Your task to perform on an android device: open chrome and create a bookmark for the current page Image 0: 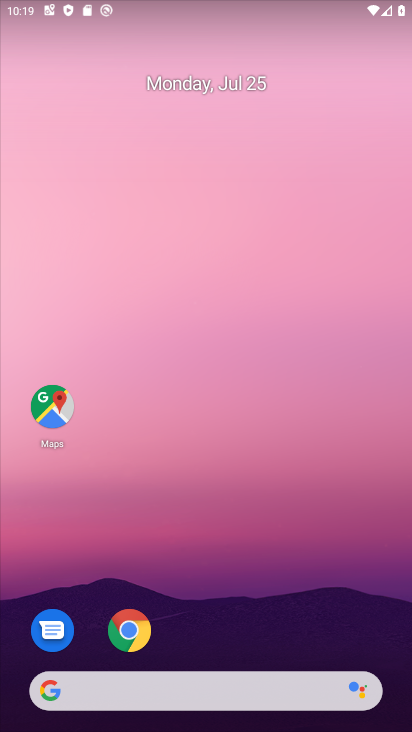
Step 0: press home button
Your task to perform on an android device: open chrome and create a bookmark for the current page Image 1: 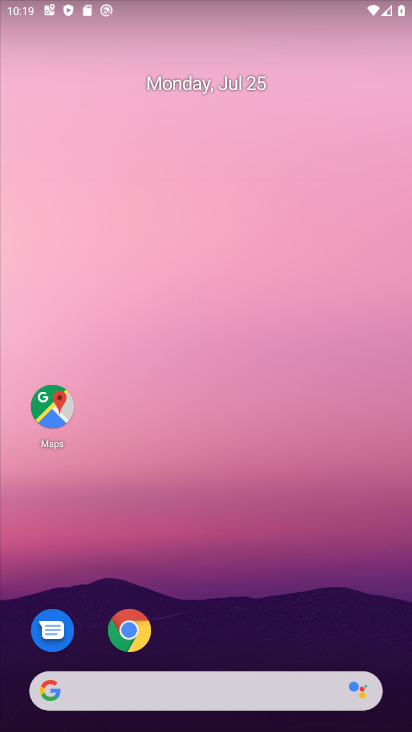
Step 1: drag from (301, 621) to (329, 106)
Your task to perform on an android device: open chrome and create a bookmark for the current page Image 2: 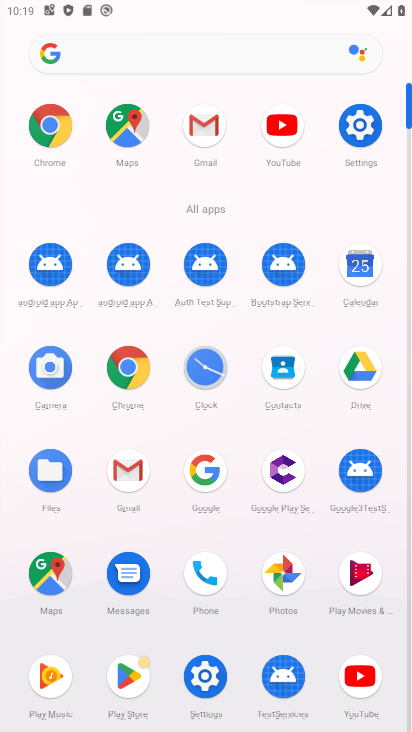
Step 2: click (137, 370)
Your task to perform on an android device: open chrome and create a bookmark for the current page Image 3: 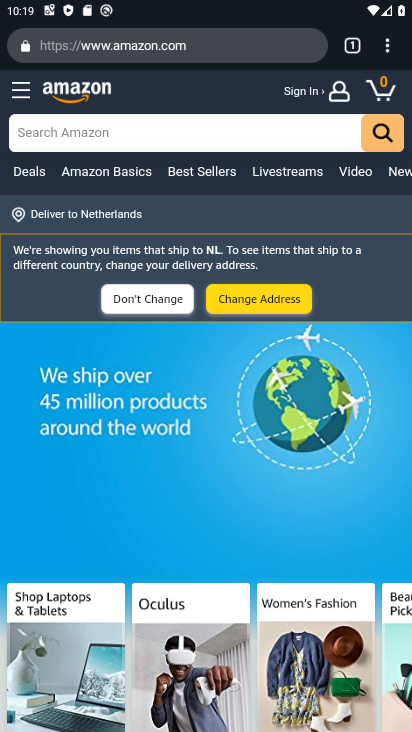
Step 3: click (387, 47)
Your task to perform on an android device: open chrome and create a bookmark for the current page Image 4: 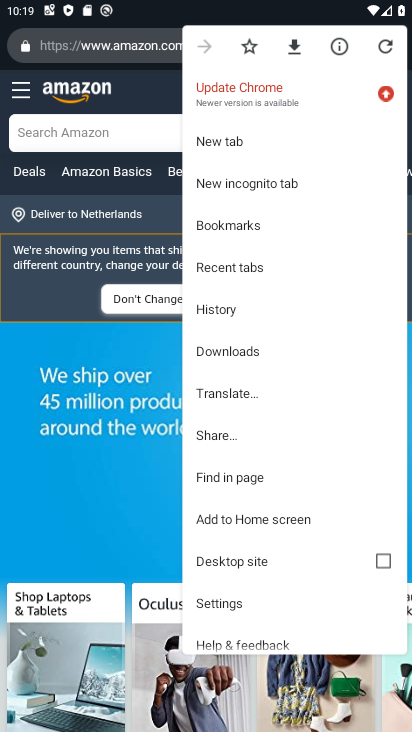
Step 4: click (252, 47)
Your task to perform on an android device: open chrome and create a bookmark for the current page Image 5: 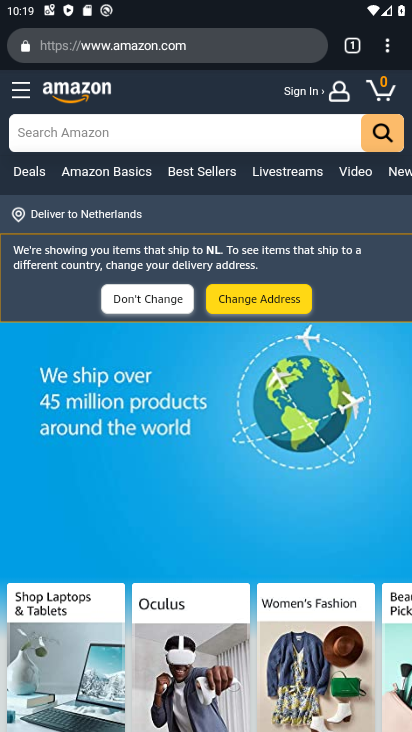
Step 5: task complete